Your task to perform on an android device: Go to Wikipedia Image 0: 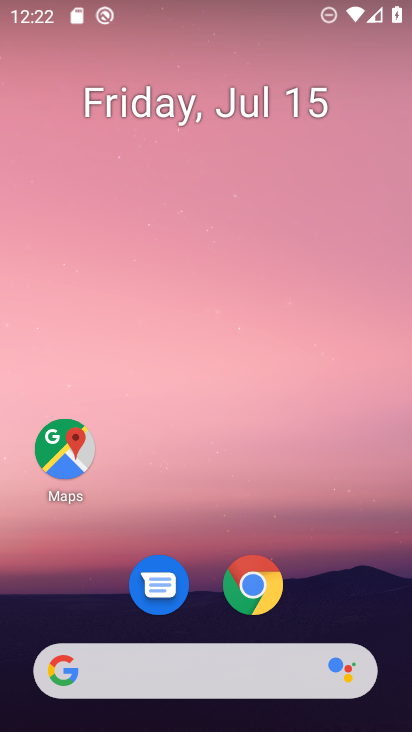
Step 0: drag from (186, 513) to (237, 47)
Your task to perform on an android device: Go to Wikipedia Image 1: 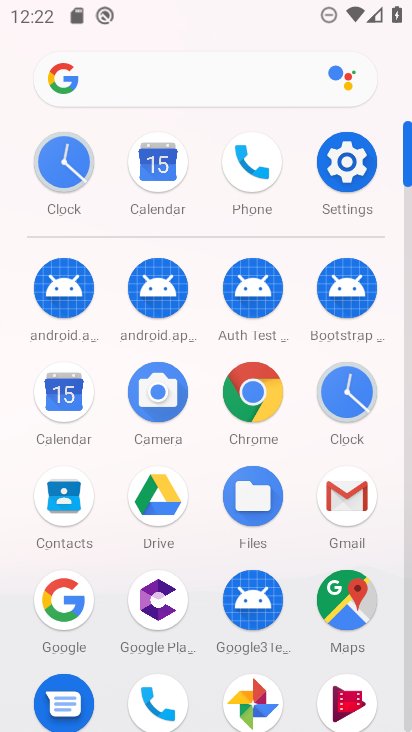
Step 1: click (245, 394)
Your task to perform on an android device: Go to Wikipedia Image 2: 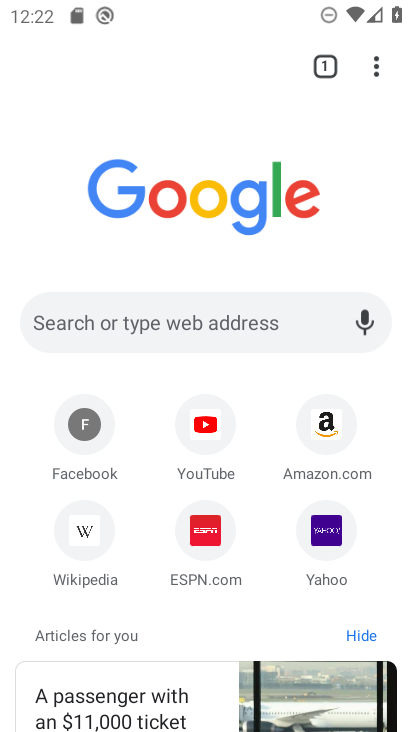
Step 2: click (93, 527)
Your task to perform on an android device: Go to Wikipedia Image 3: 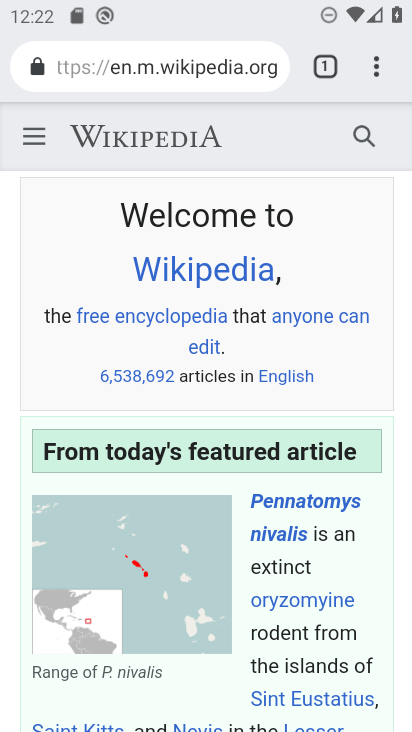
Step 3: task complete